Your task to perform on an android device: Open wifi settings Image 0: 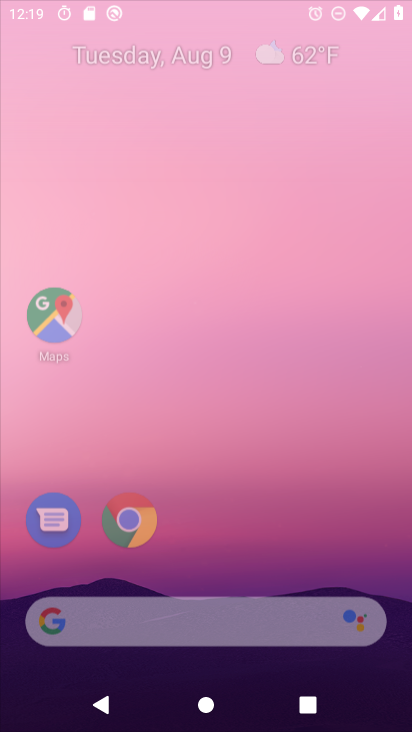
Step 0: press home button
Your task to perform on an android device: Open wifi settings Image 1: 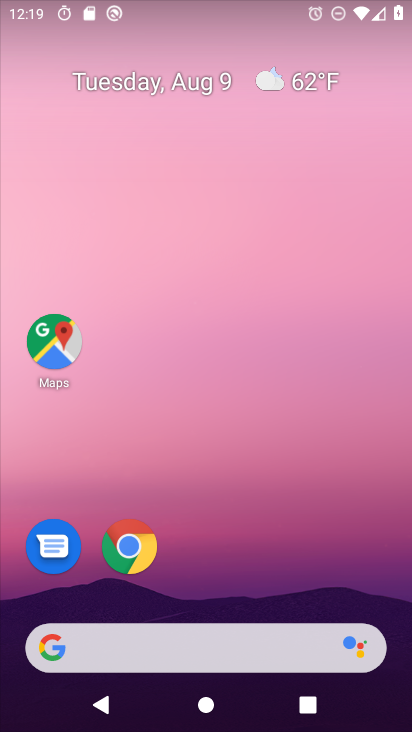
Step 1: drag from (230, 604) to (251, 65)
Your task to perform on an android device: Open wifi settings Image 2: 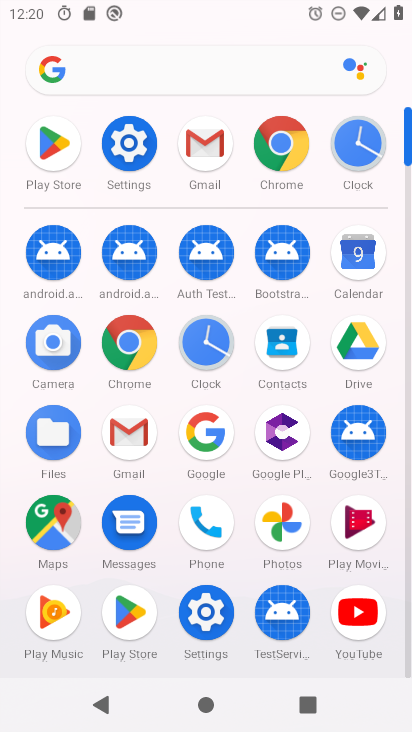
Step 2: click (127, 136)
Your task to perform on an android device: Open wifi settings Image 3: 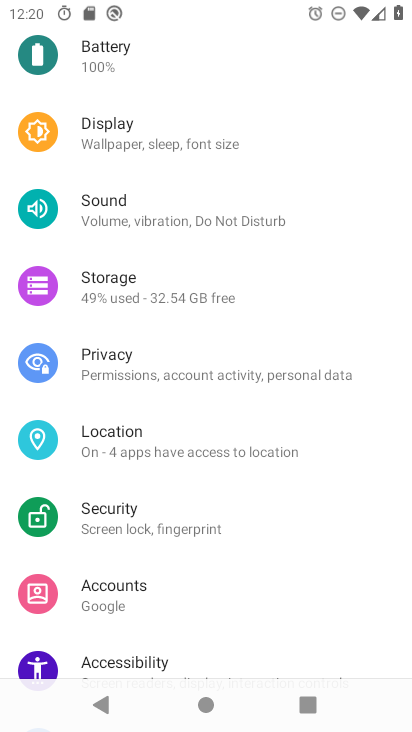
Step 3: drag from (146, 63) to (165, 597)
Your task to perform on an android device: Open wifi settings Image 4: 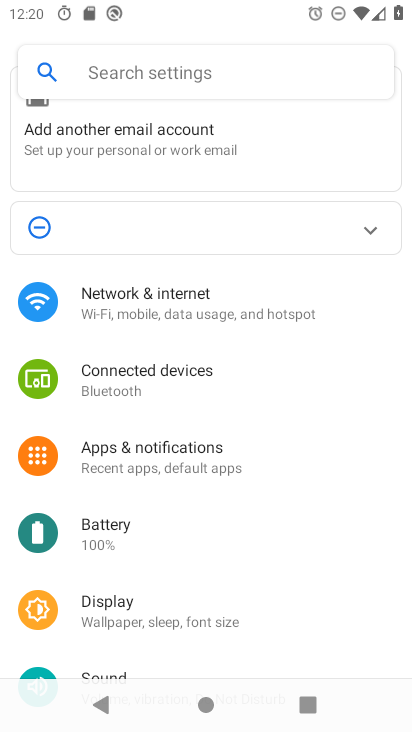
Step 4: click (225, 299)
Your task to perform on an android device: Open wifi settings Image 5: 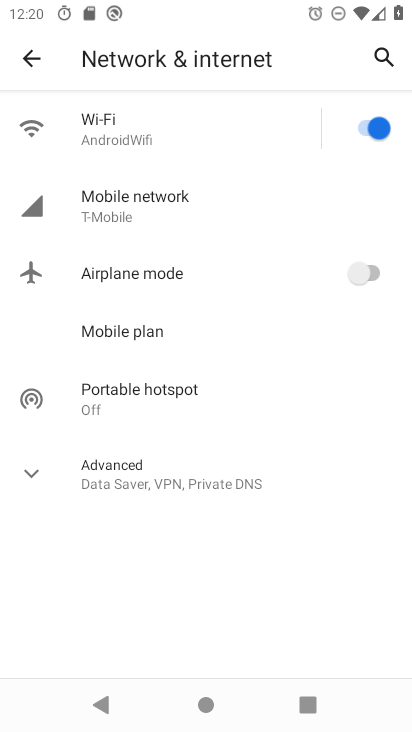
Step 5: click (168, 120)
Your task to perform on an android device: Open wifi settings Image 6: 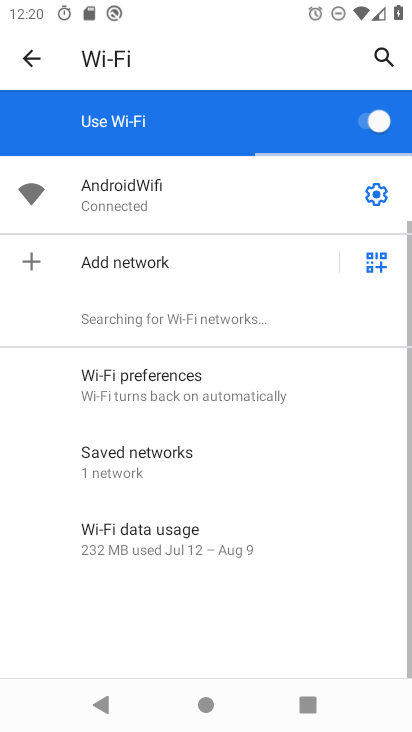
Step 6: task complete